Your task to perform on an android device: Go to Maps Image 0: 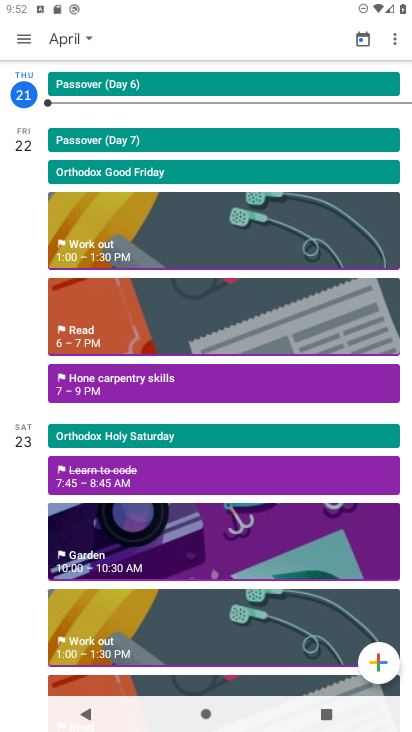
Step 0: press home button
Your task to perform on an android device: Go to Maps Image 1: 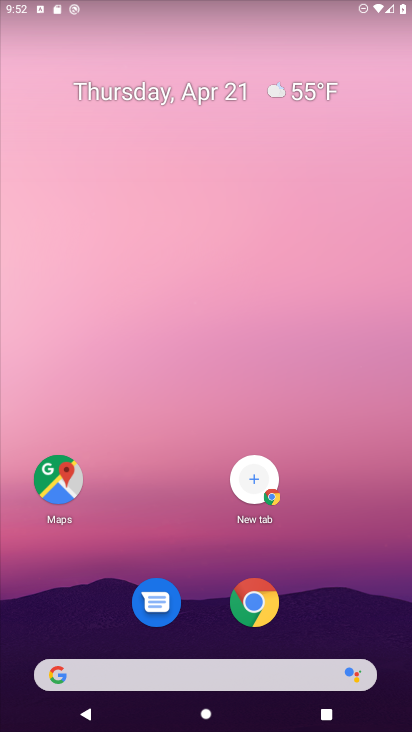
Step 1: click (47, 480)
Your task to perform on an android device: Go to Maps Image 2: 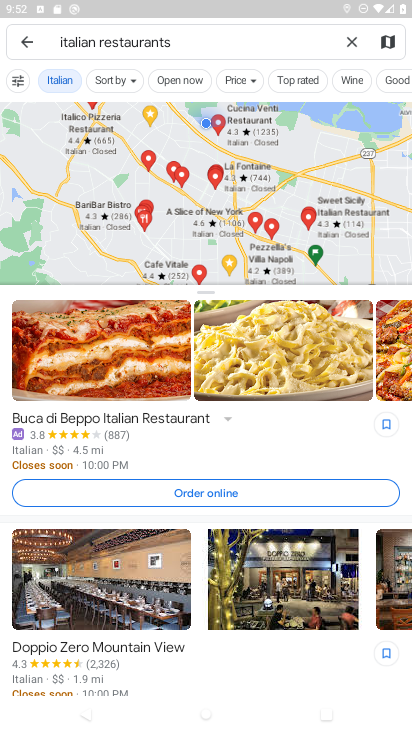
Step 2: task complete